Your task to perform on an android device: Search for the best rated TV on Target Image 0: 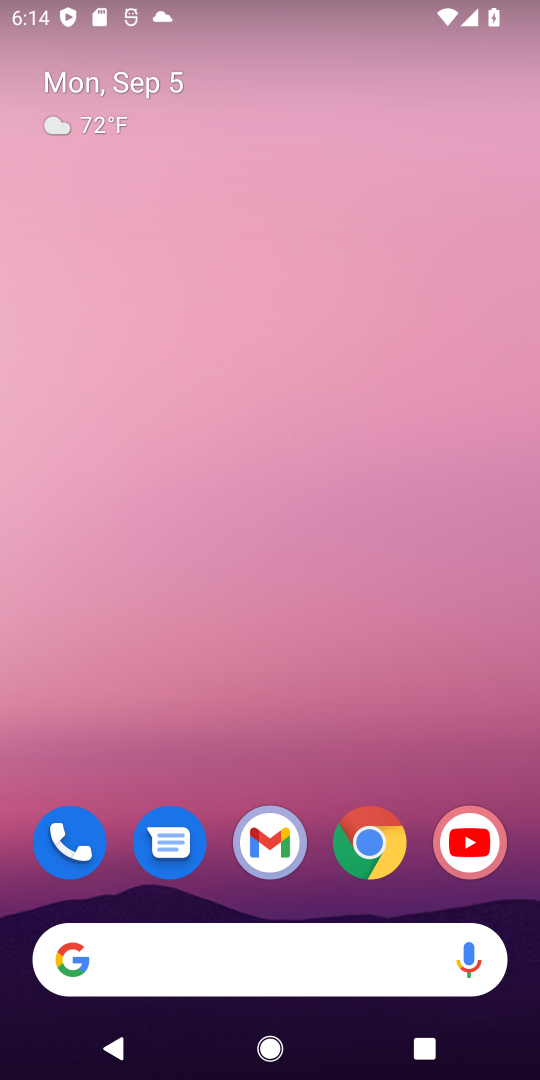
Step 0: click (368, 840)
Your task to perform on an android device: Search for the best rated TV on Target Image 1: 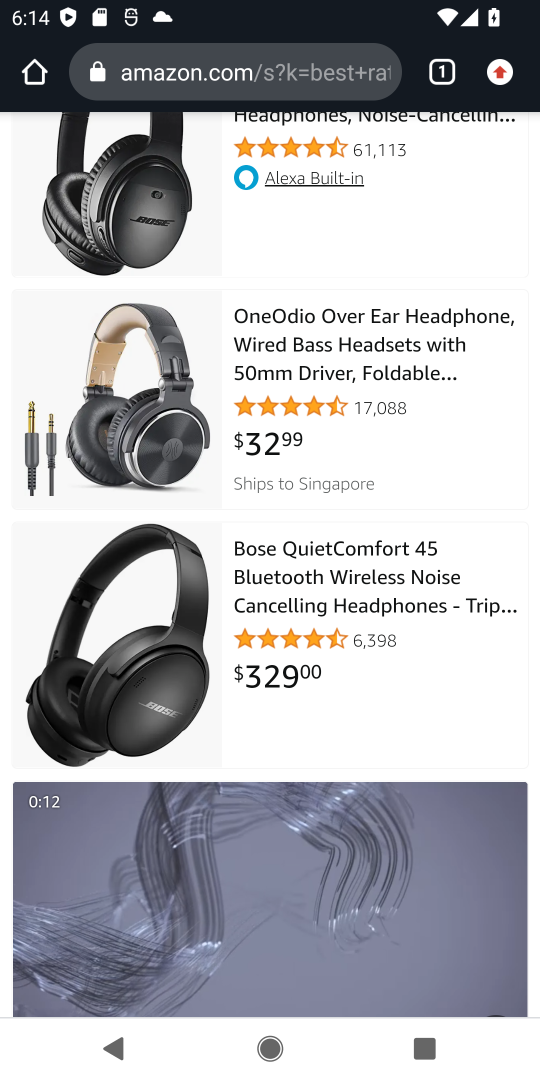
Step 1: click (343, 80)
Your task to perform on an android device: Search for the best rated TV on Target Image 2: 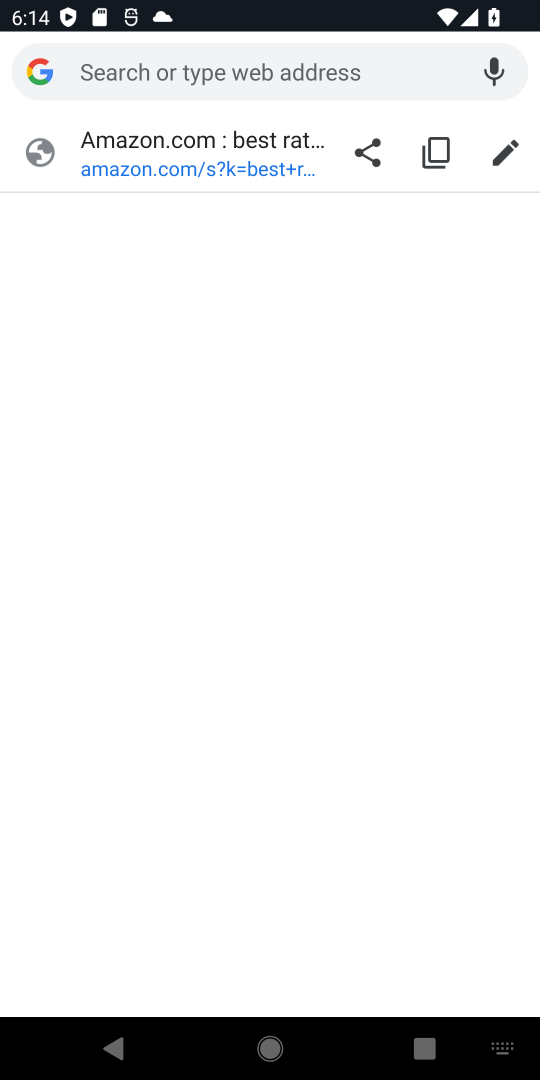
Step 2: type "Target"
Your task to perform on an android device: Search for the best rated TV on Target Image 3: 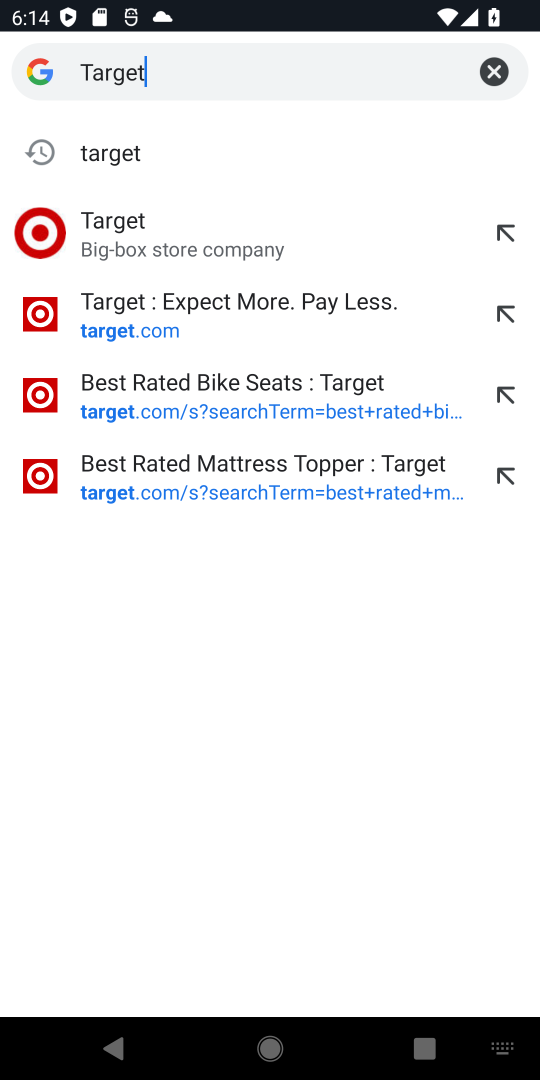
Step 3: click (122, 154)
Your task to perform on an android device: Search for the best rated TV on Target Image 4: 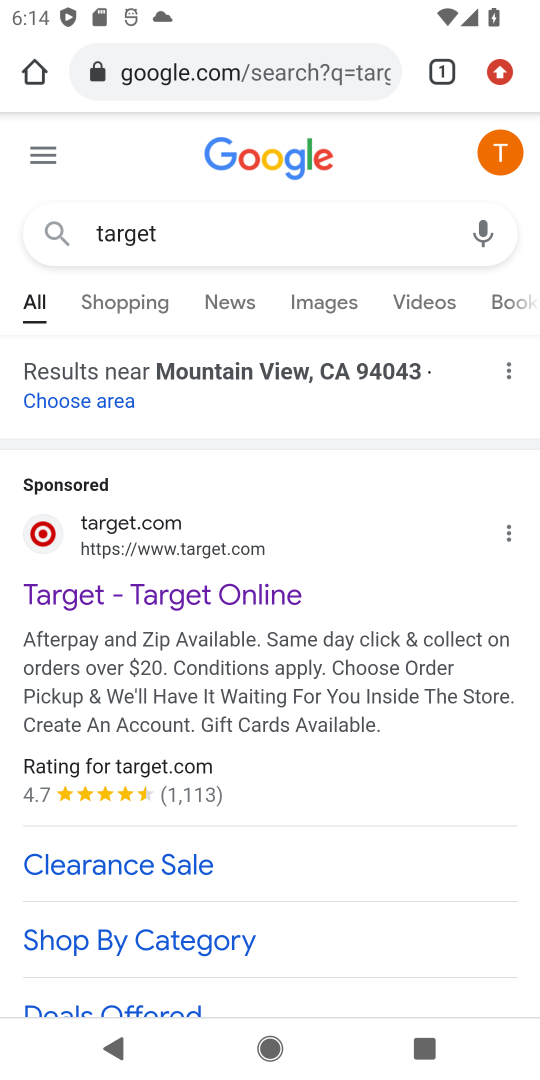
Step 4: drag from (344, 582) to (372, 259)
Your task to perform on an android device: Search for the best rated TV on Target Image 5: 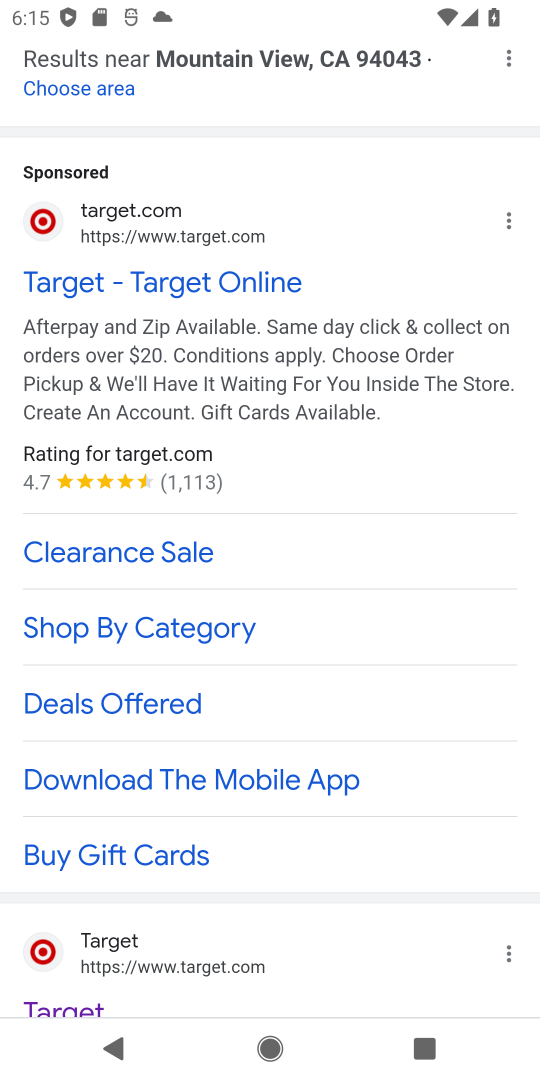
Step 5: drag from (263, 914) to (303, 588)
Your task to perform on an android device: Search for the best rated TV on Target Image 6: 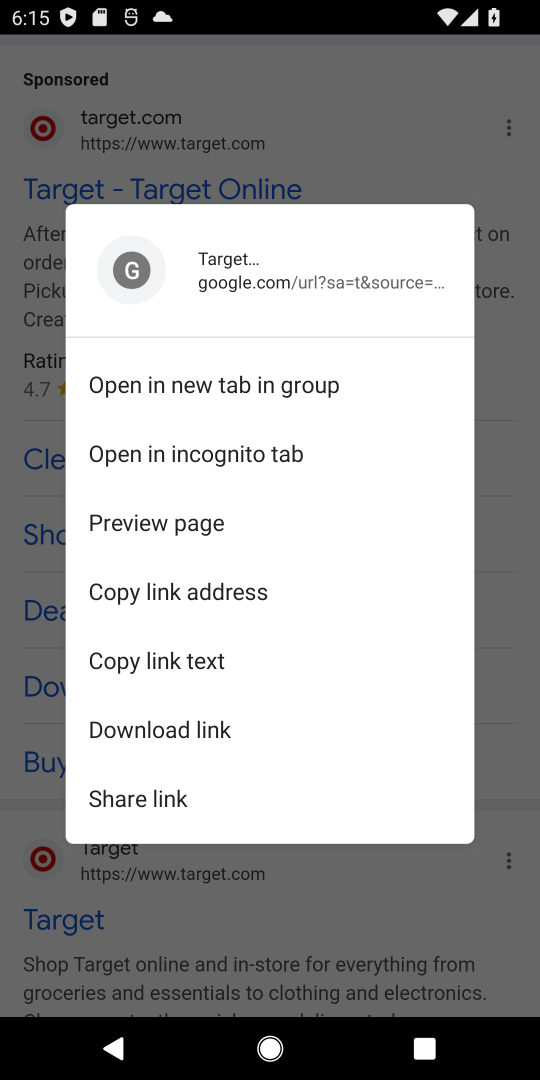
Step 6: click (420, 142)
Your task to perform on an android device: Search for the best rated TV on Target Image 7: 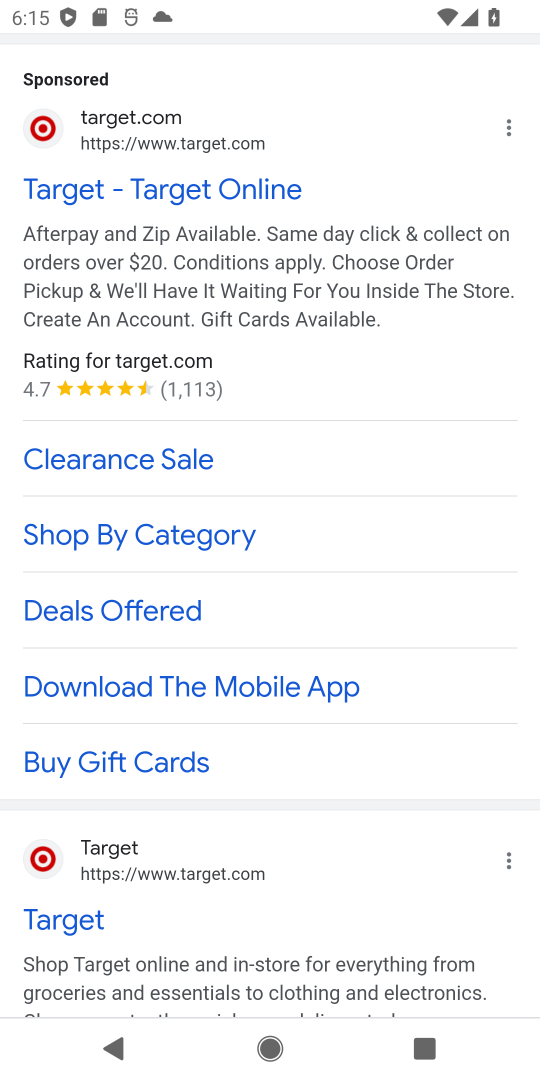
Step 7: click (152, 936)
Your task to perform on an android device: Search for the best rated TV on Target Image 8: 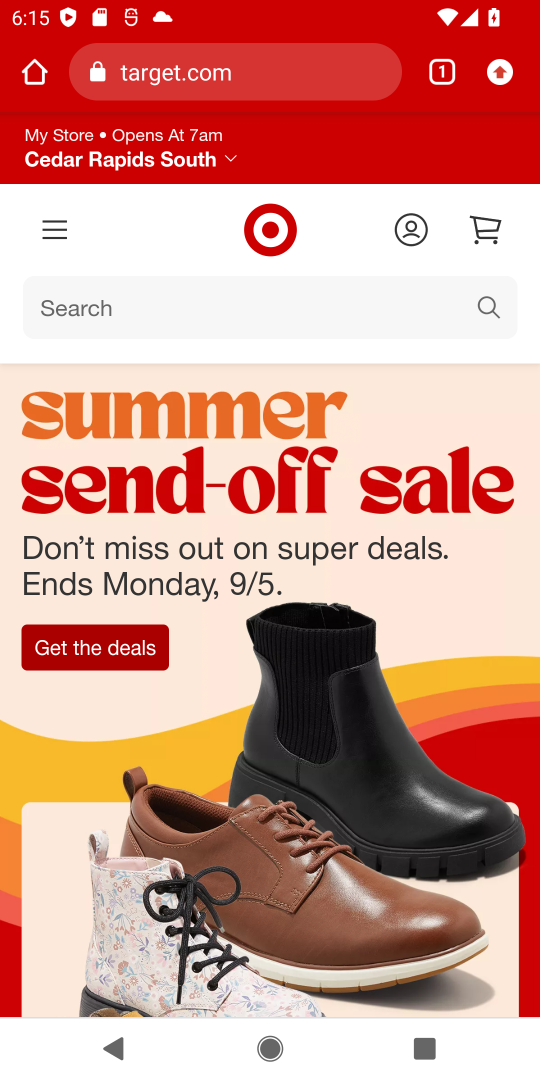
Step 8: click (129, 307)
Your task to perform on an android device: Search for the best rated TV on Target Image 9: 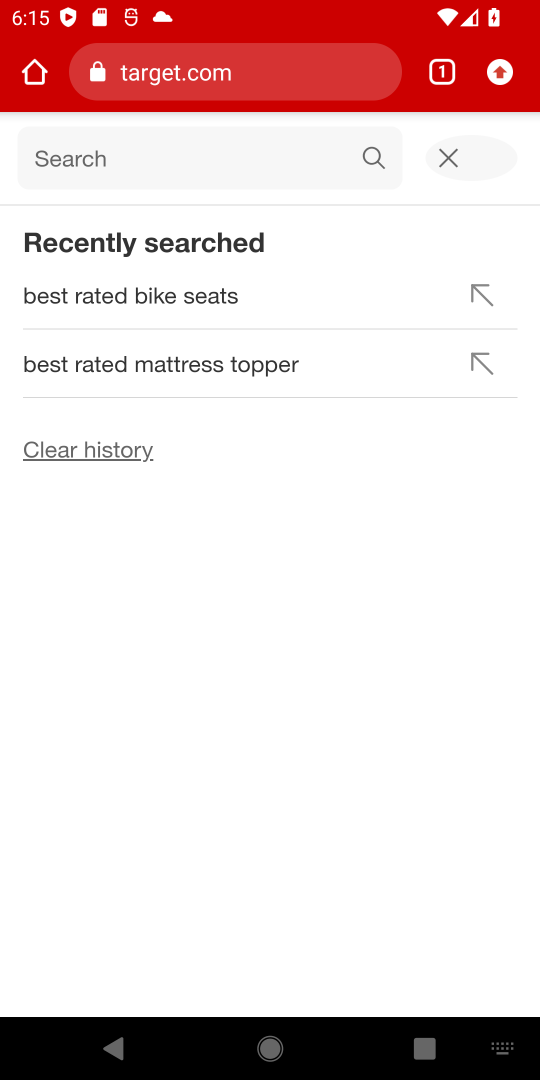
Step 9: type "best rated TV"
Your task to perform on an android device: Search for the best rated TV on Target Image 10: 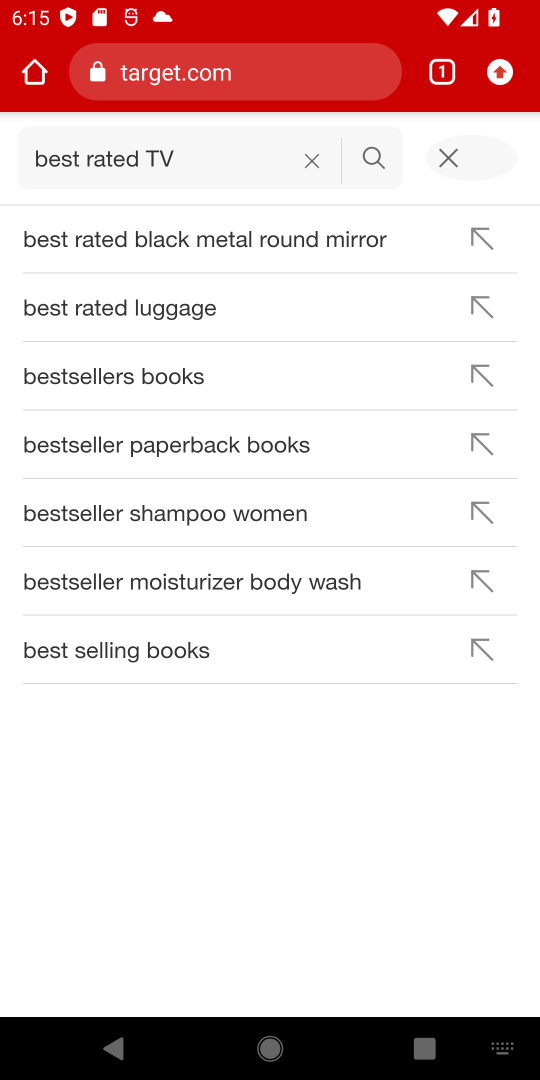
Step 10: click (370, 164)
Your task to perform on an android device: Search for the best rated TV on Target Image 11: 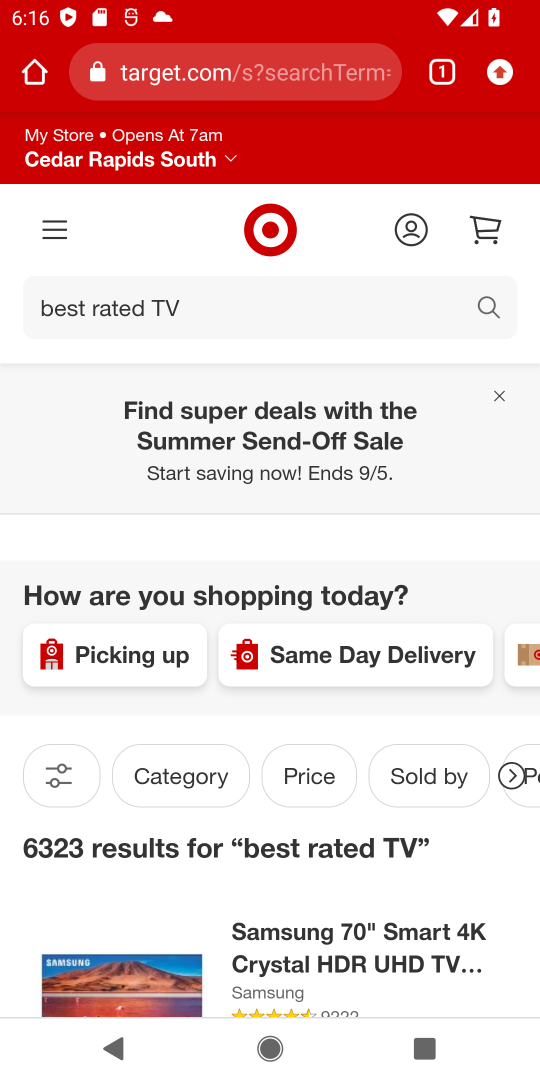
Step 11: task complete